Your task to perform on an android device: turn on the 12-hour format for clock Image 0: 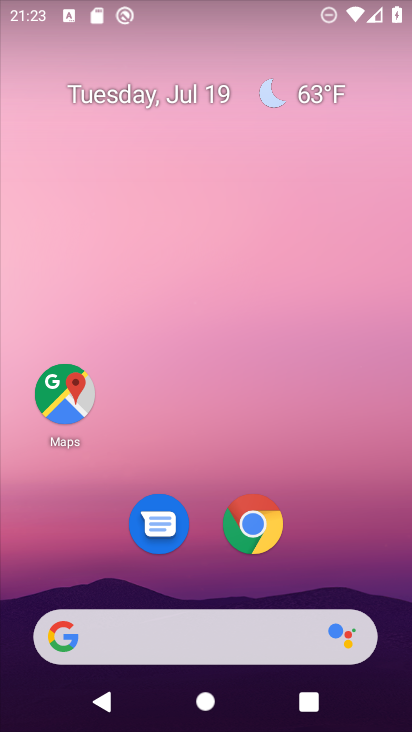
Step 0: drag from (305, 530) to (287, 51)
Your task to perform on an android device: turn on the 12-hour format for clock Image 1: 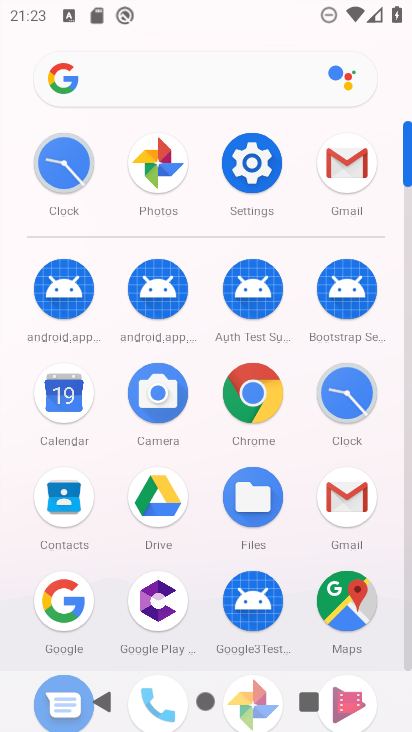
Step 1: click (343, 384)
Your task to perform on an android device: turn on the 12-hour format for clock Image 2: 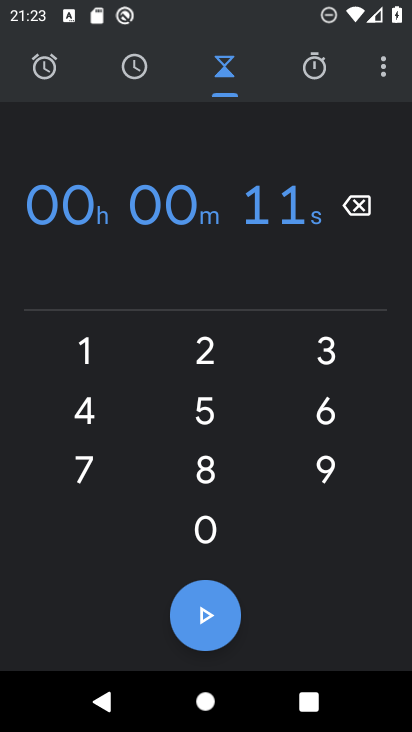
Step 2: click (138, 60)
Your task to perform on an android device: turn on the 12-hour format for clock Image 3: 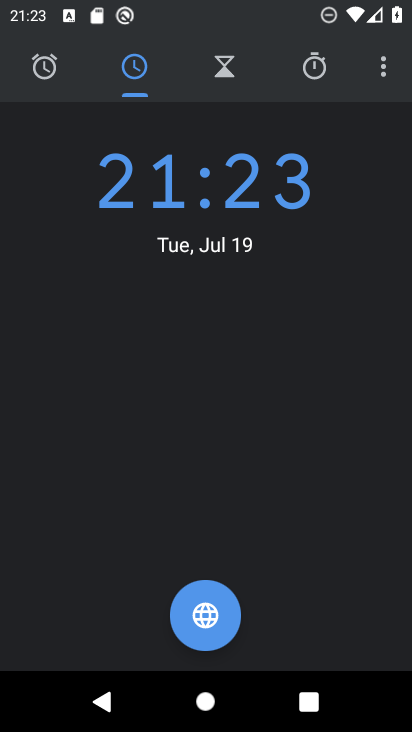
Step 3: click (385, 70)
Your task to perform on an android device: turn on the 12-hour format for clock Image 4: 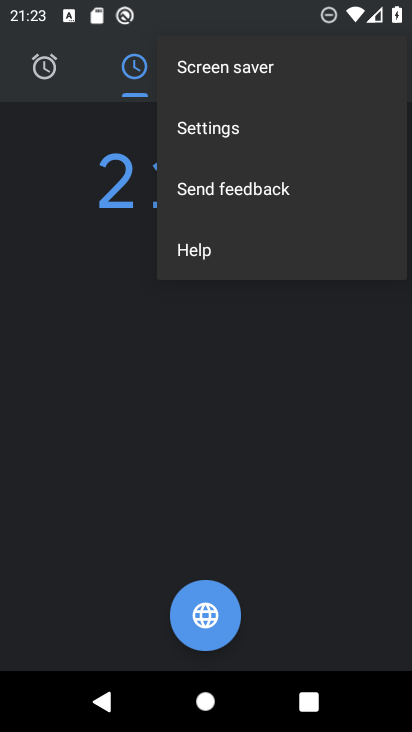
Step 4: click (303, 127)
Your task to perform on an android device: turn on the 12-hour format for clock Image 5: 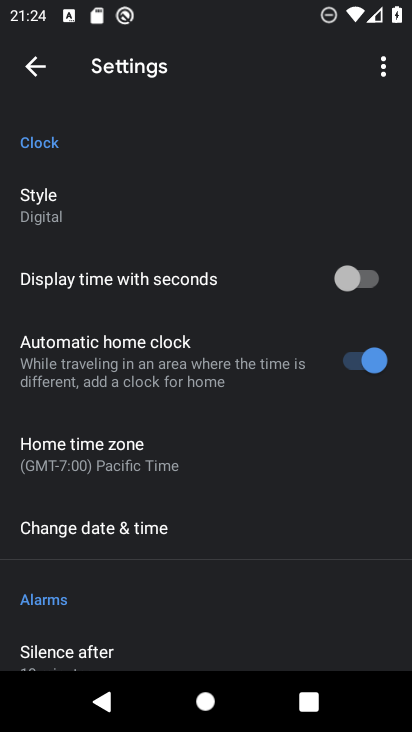
Step 5: click (227, 531)
Your task to perform on an android device: turn on the 12-hour format for clock Image 6: 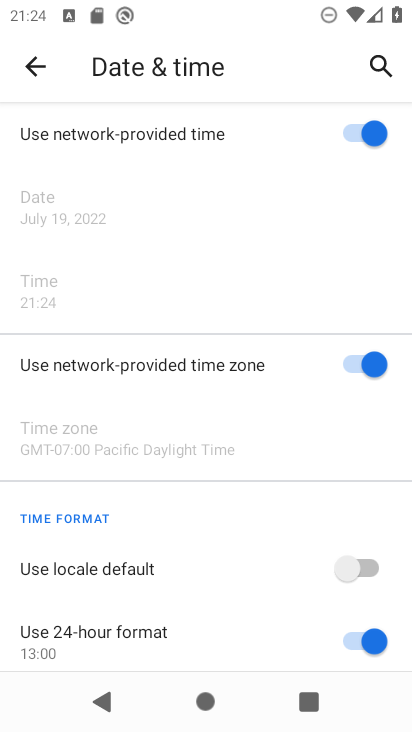
Step 6: click (365, 573)
Your task to perform on an android device: turn on the 12-hour format for clock Image 7: 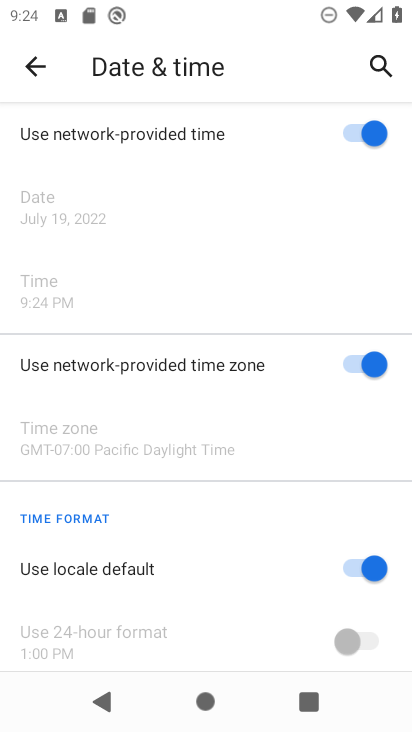
Step 7: task complete